Your task to perform on an android device: Clear the shopping cart on newegg. Add "duracell triple a" to the cart on newegg Image 0: 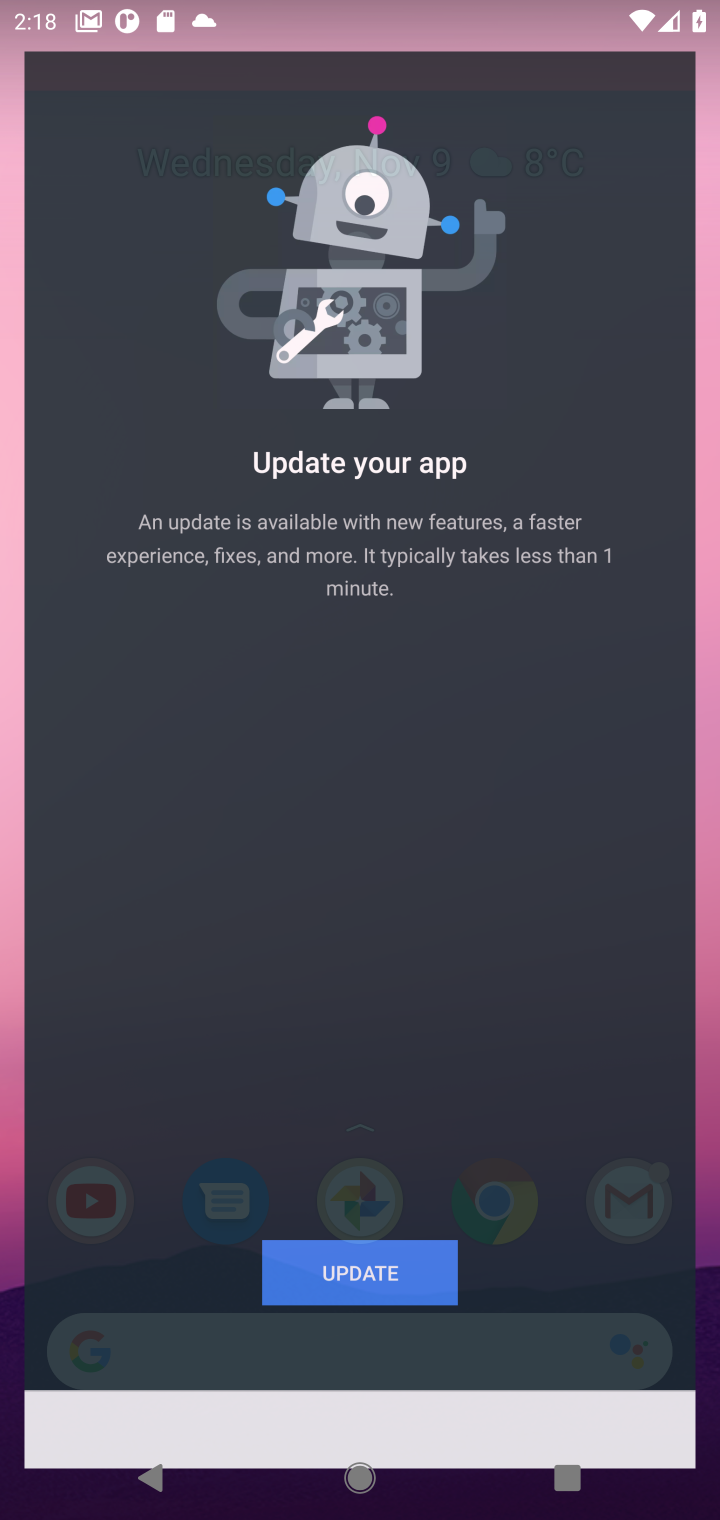
Step 0: press home button
Your task to perform on an android device: Clear the shopping cart on newegg. Add "duracell triple a" to the cart on newegg Image 1: 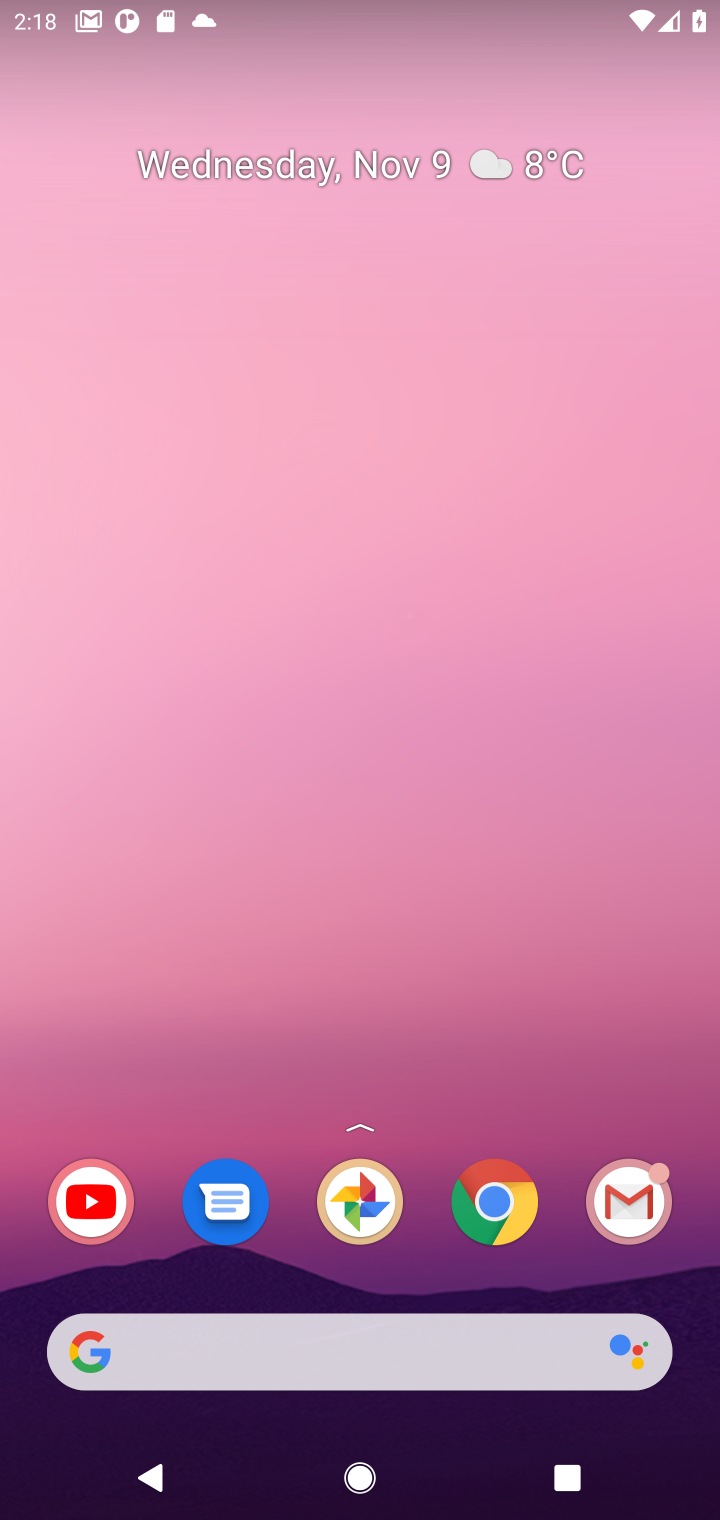
Step 1: press home button
Your task to perform on an android device: Clear the shopping cart on newegg. Add "duracell triple a" to the cart on newegg Image 2: 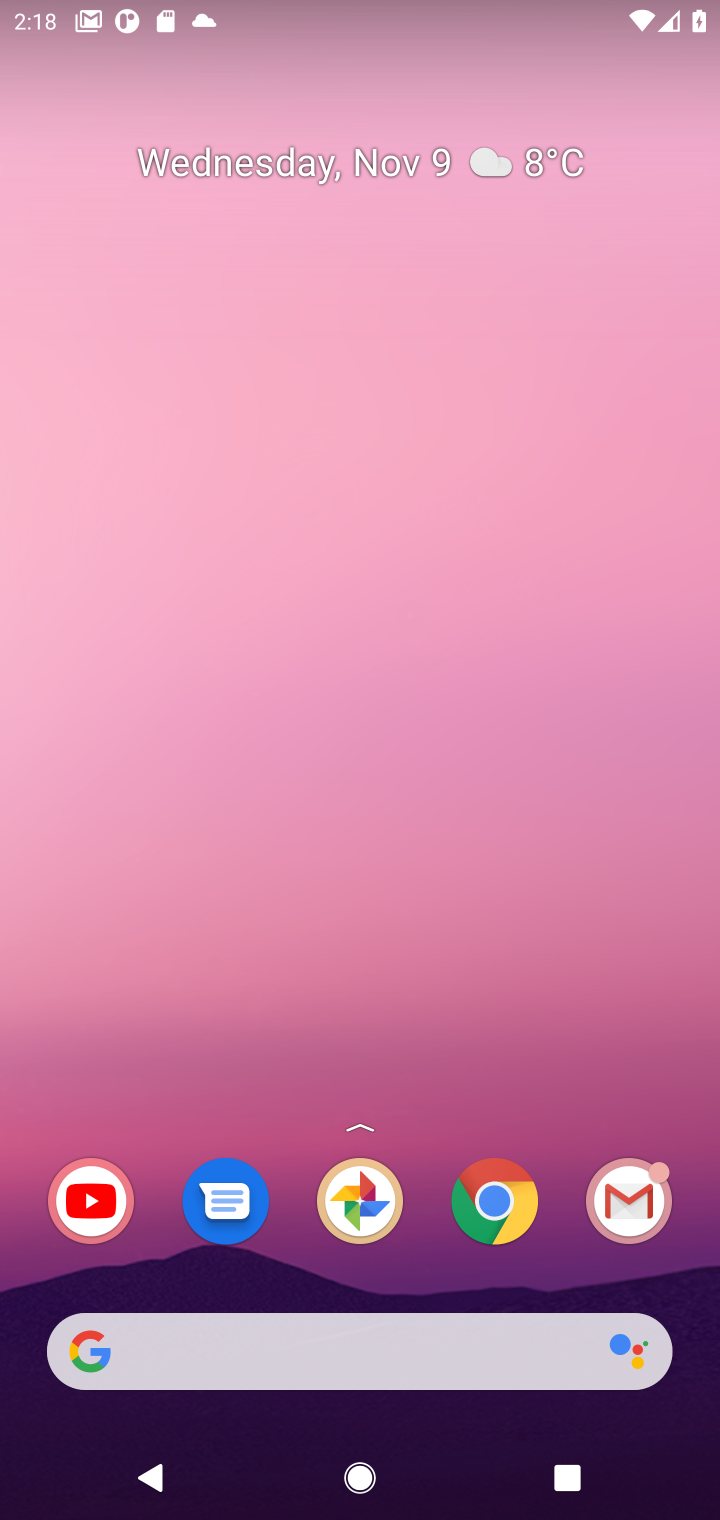
Step 2: click (365, 1351)
Your task to perform on an android device: Clear the shopping cart on newegg. Add "duracell triple a" to the cart on newegg Image 3: 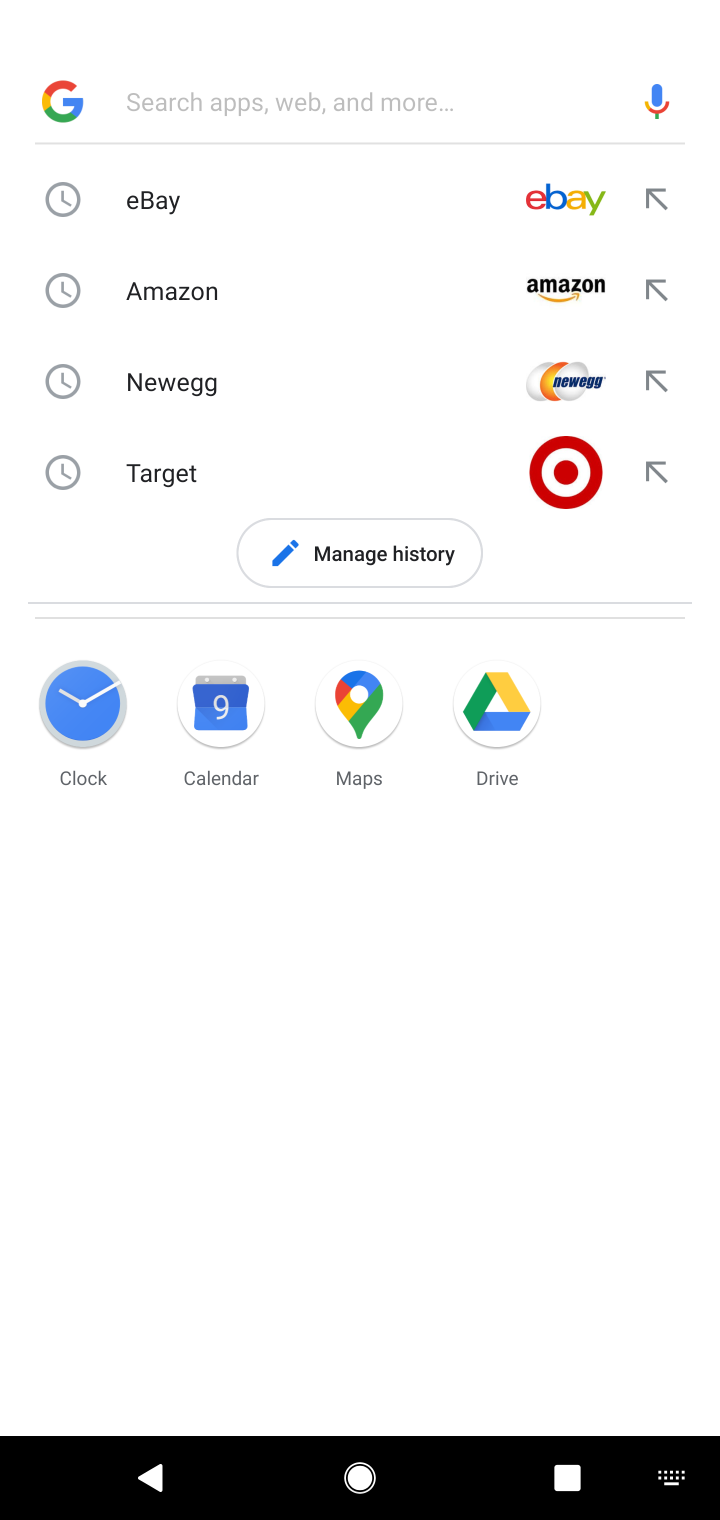
Step 3: click (243, 384)
Your task to perform on an android device: Clear the shopping cart on newegg. Add "duracell triple a" to the cart on newegg Image 4: 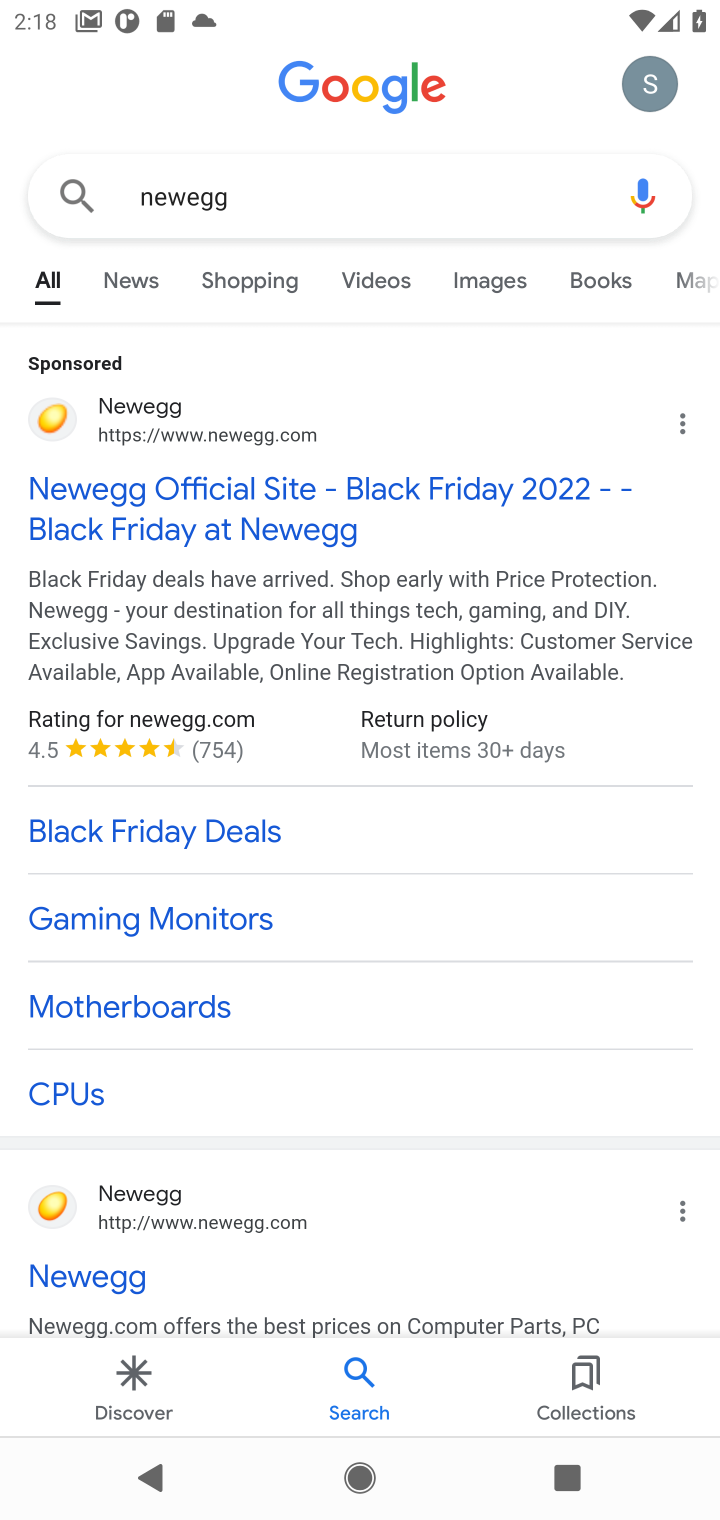
Step 4: click (123, 426)
Your task to perform on an android device: Clear the shopping cart on newegg. Add "duracell triple a" to the cart on newegg Image 5: 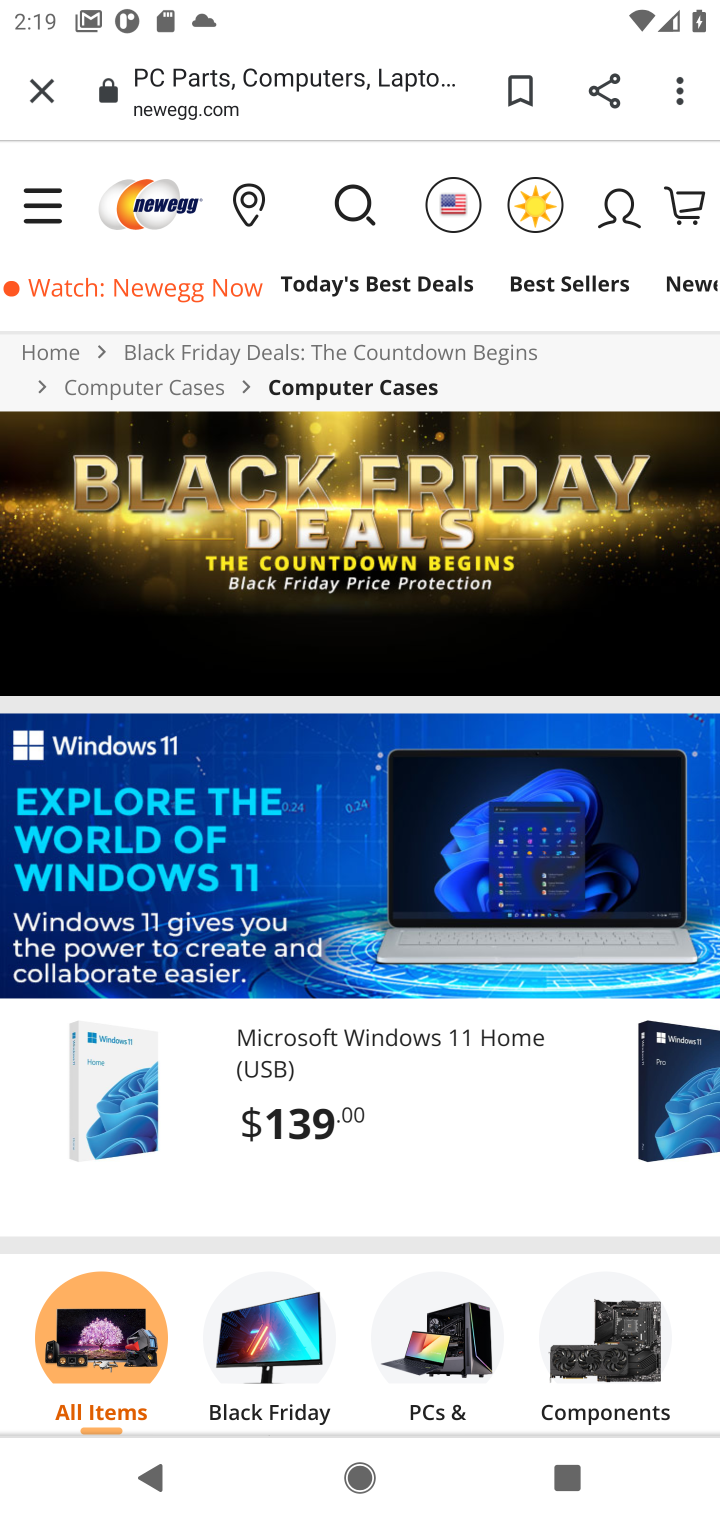
Step 5: click (347, 200)
Your task to perform on an android device: Clear the shopping cart on newegg. Add "duracell triple a" to the cart on newegg Image 6: 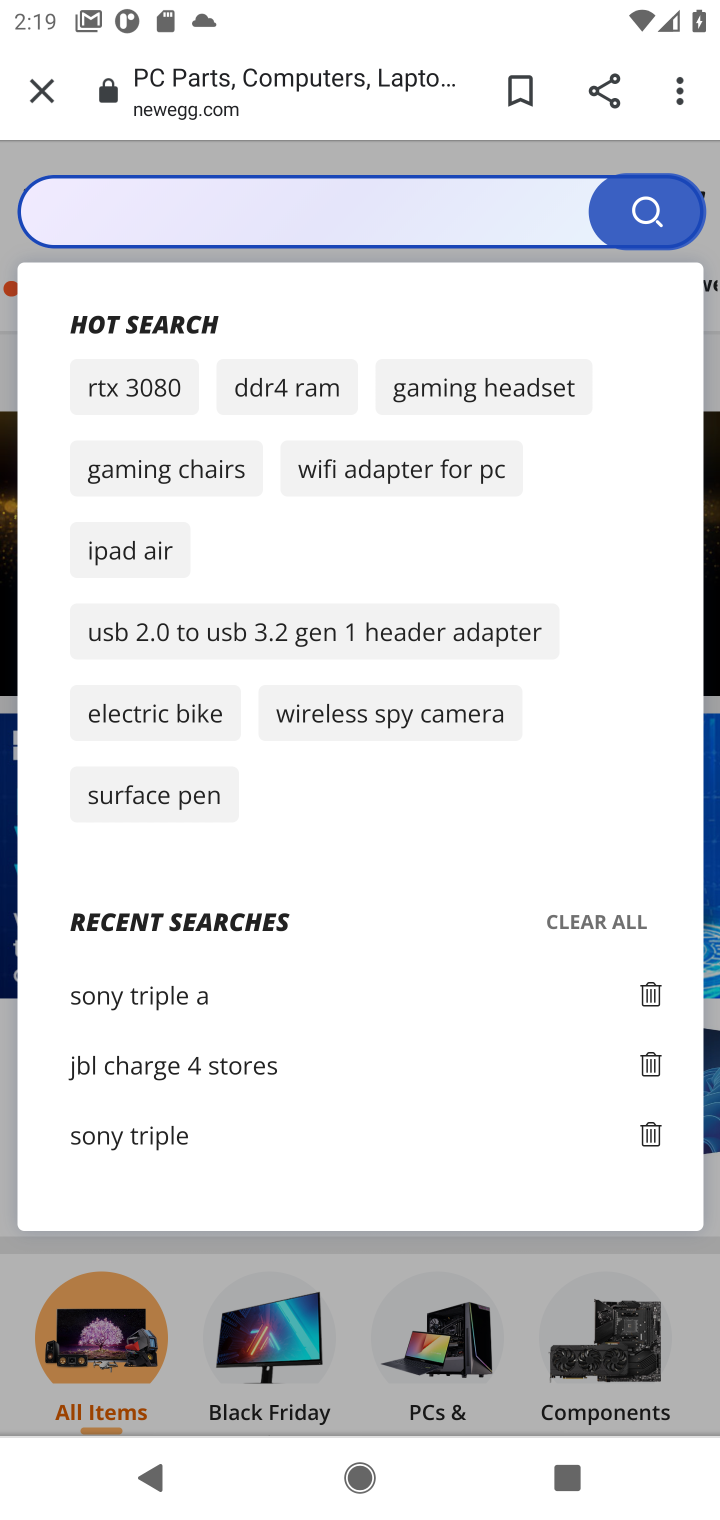
Step 6: click (197, 185)
Your task to perform on an android device: Clear the shopping cart on newegg. Add "duracell triple a" to the cart on newegg Image 7: 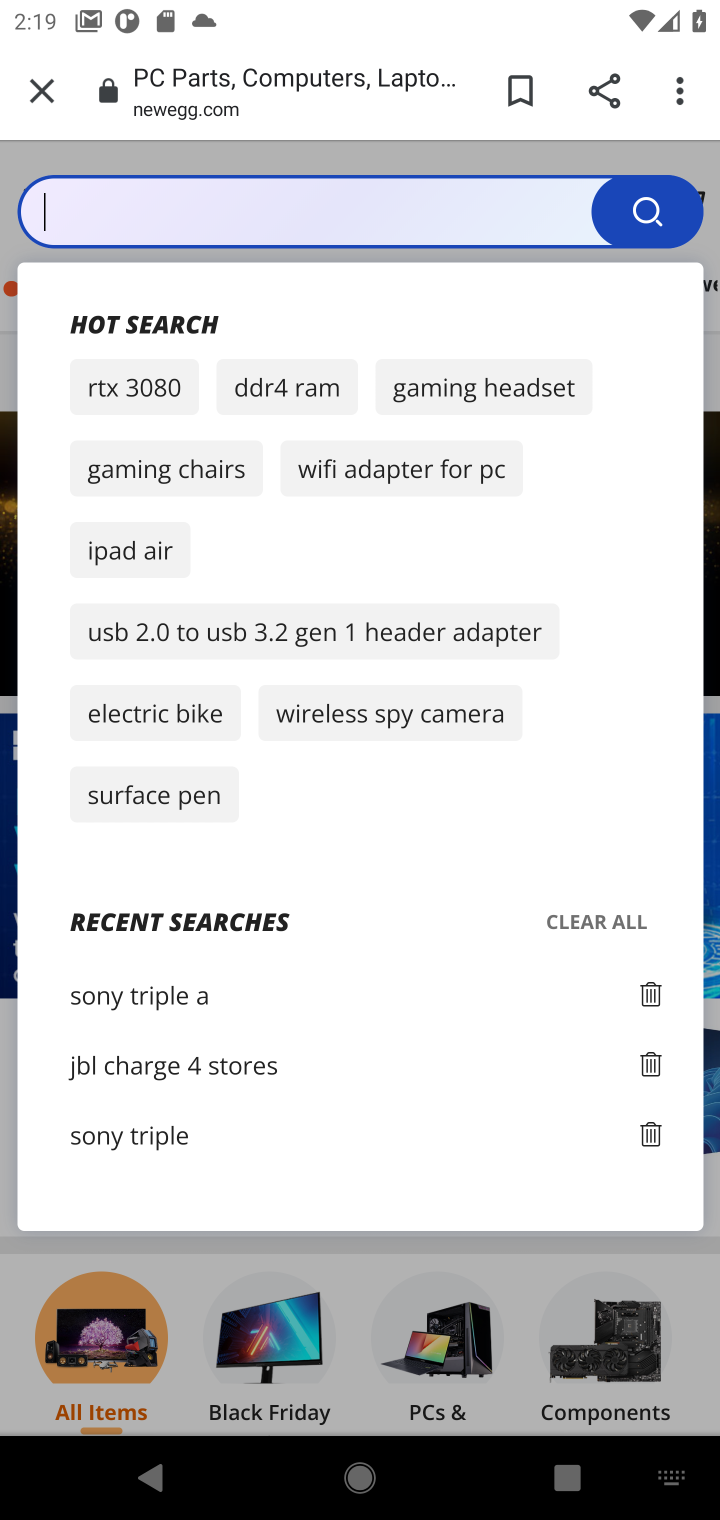
Step 7: type "duracell triple a"
Your task to perform on an android device: Clear the shopping cart on newegg. Add "duracell triple a" to the cart on newegg Image 8: 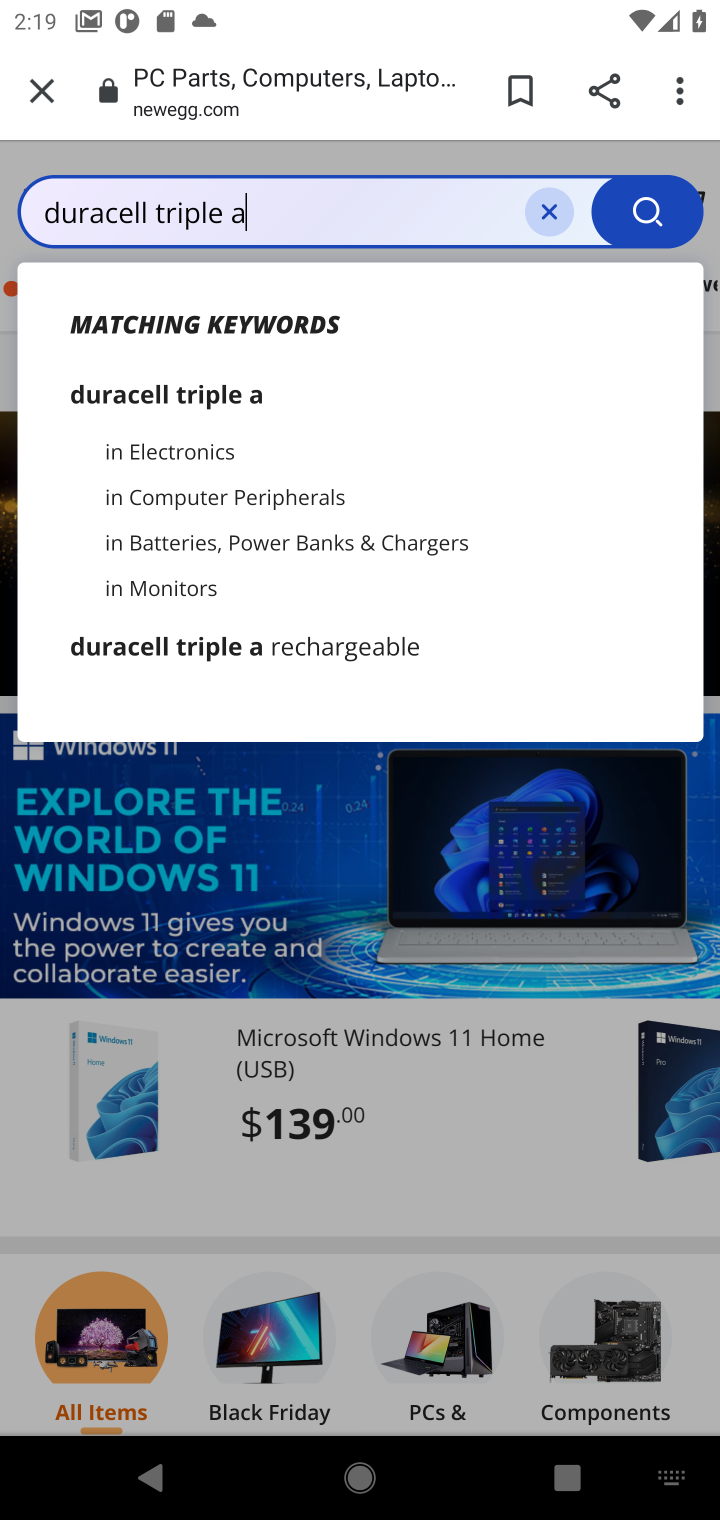
Step 8: click (187, 382)
Your task to perform on an android device: Clear the shopping cart on newegg. Add "duracell triple a" to the cart on newegg Image 9: 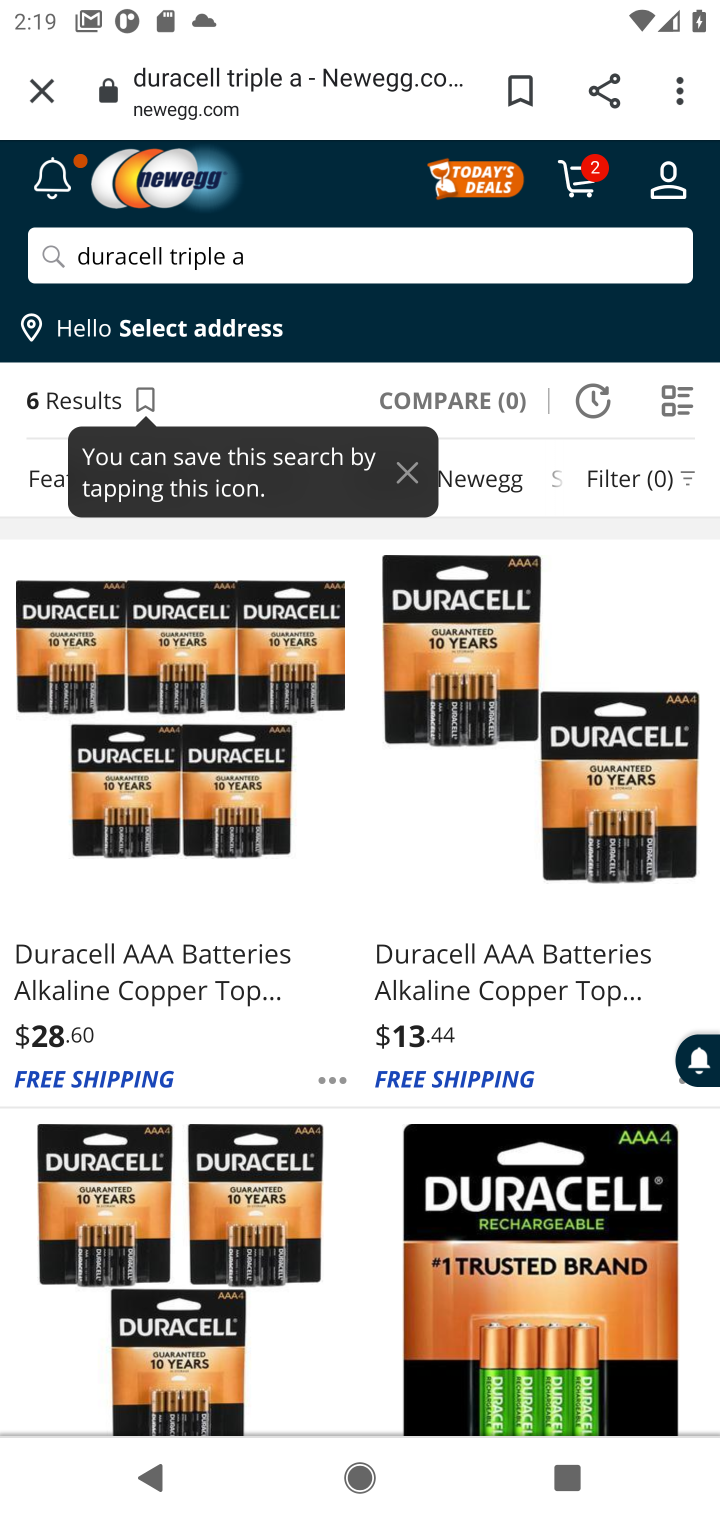
Step 9: click (128, 812)
Your task to perform on an android device: Clear the shopping cart on newegg. Add "duracell triple a" to the cart on newegg Image 10: 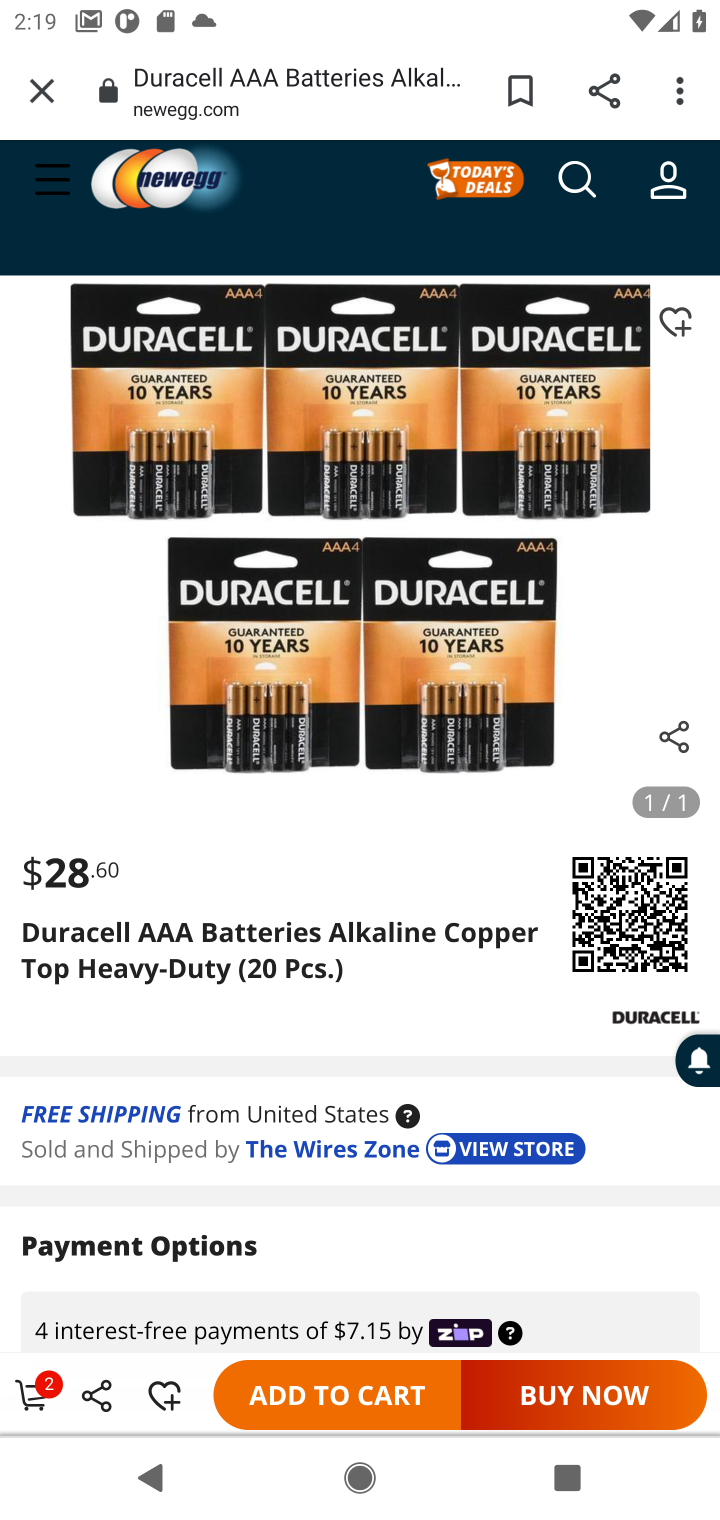
Step 10: click (303, 1386)
Your task to perform on an android device: Clear the shopping cart on newegg. Add "duracell triple a" to the cart on newegg Image 11: 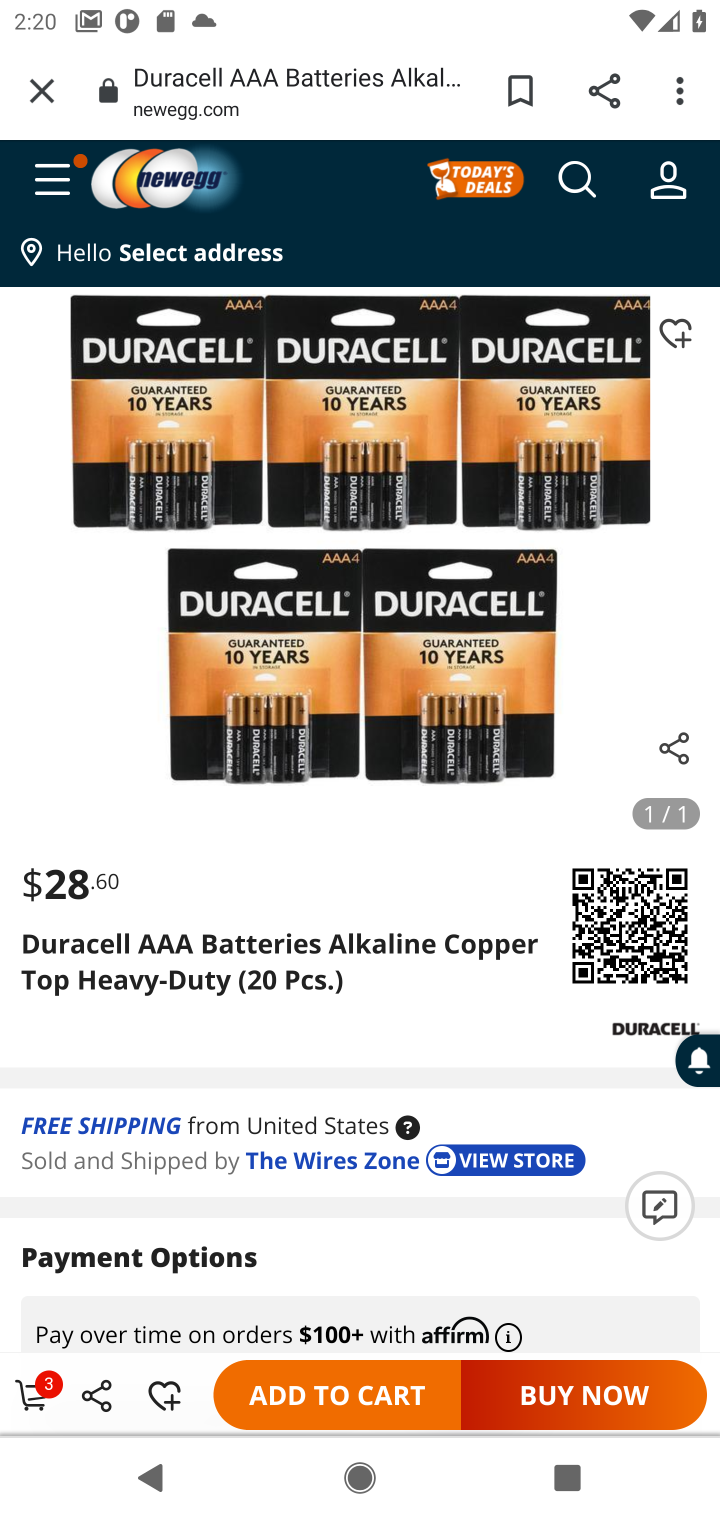
Step 11: click (37, 1403)
Your task to perform on an android device: Clear the shopping cart on newegg. Add "duracell triple a" to the cart on newegg Image 12: 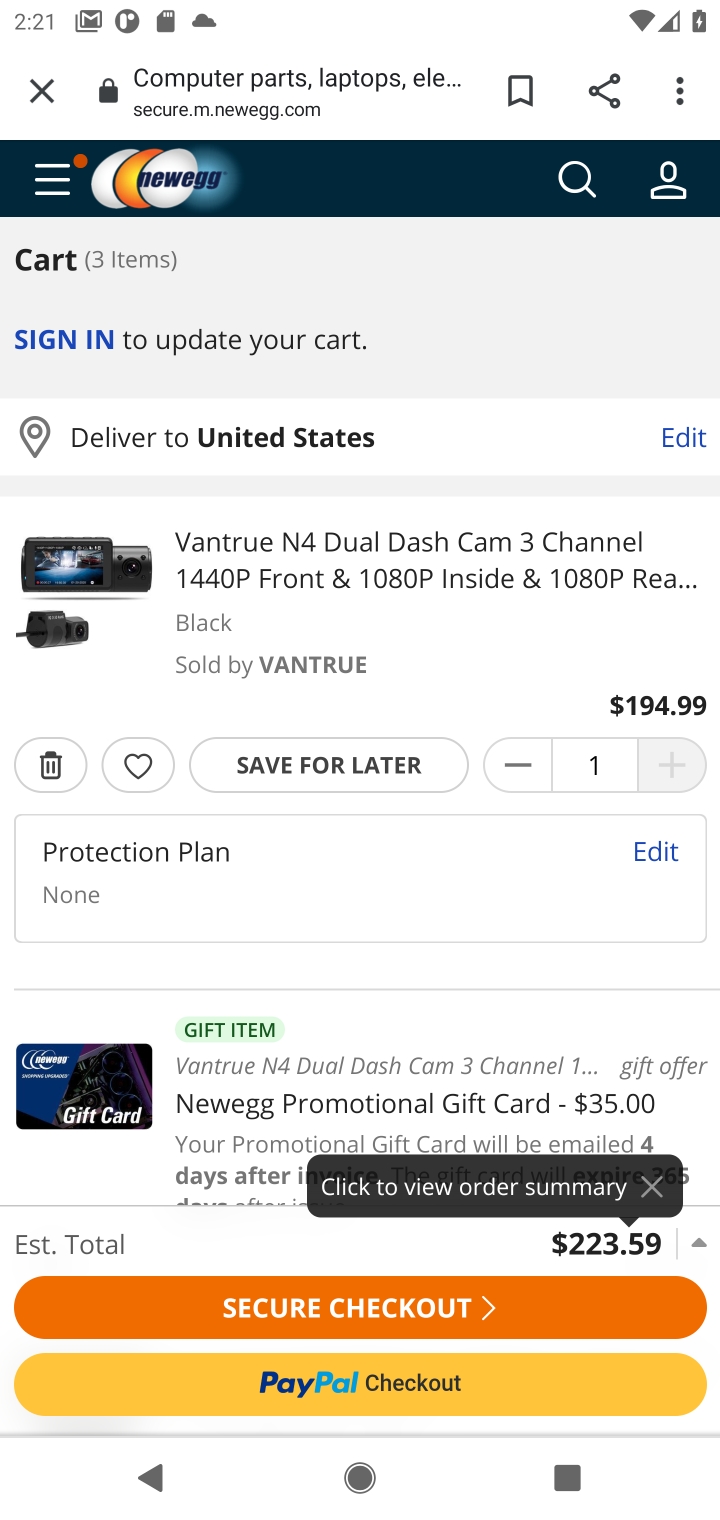
Step 12: click (342, 1291)
Your task to perform on an android device: Clear the shopping cart on newegg. Add "duracell triple a" to the cart on newegg Image 13: 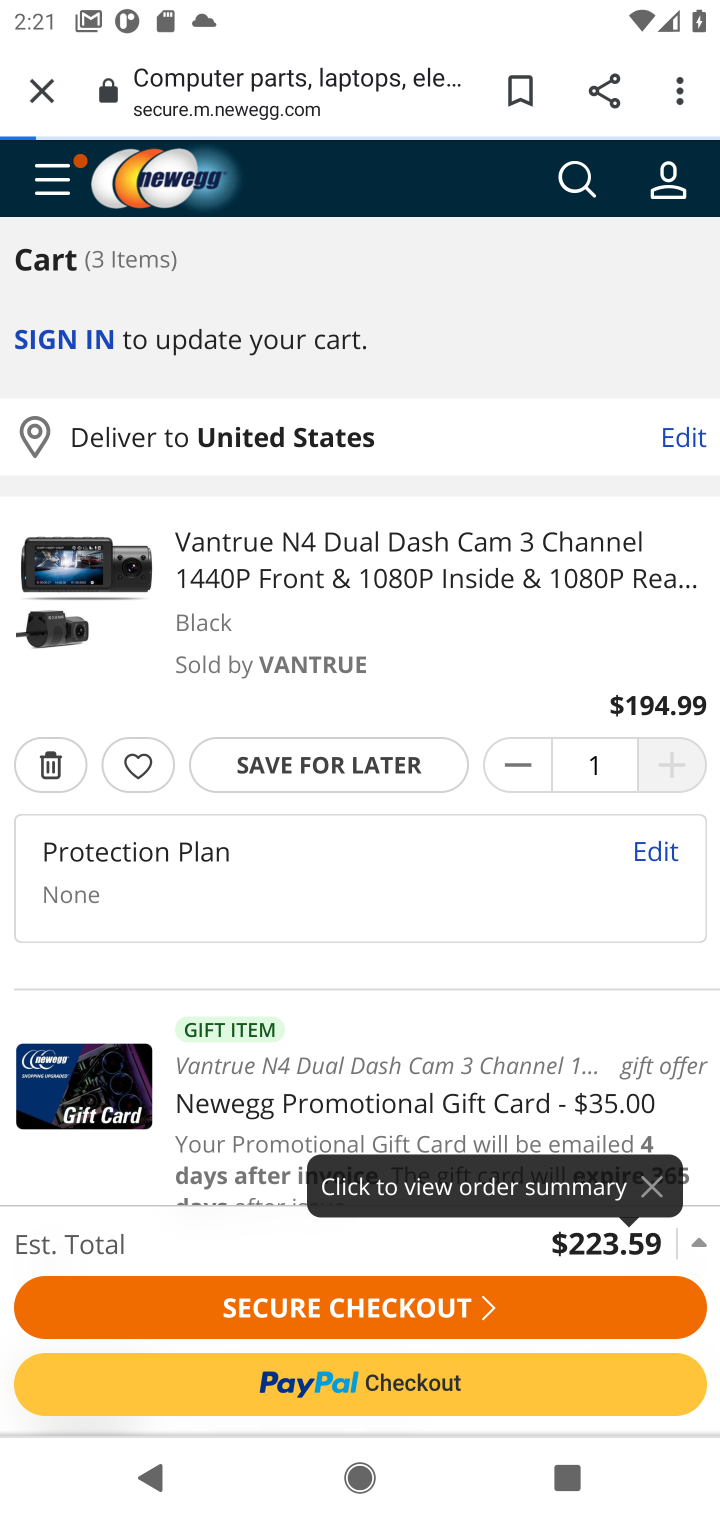
Step 13: task complete